Your task to perform on an android device: open chrome privacy settings Image 0: 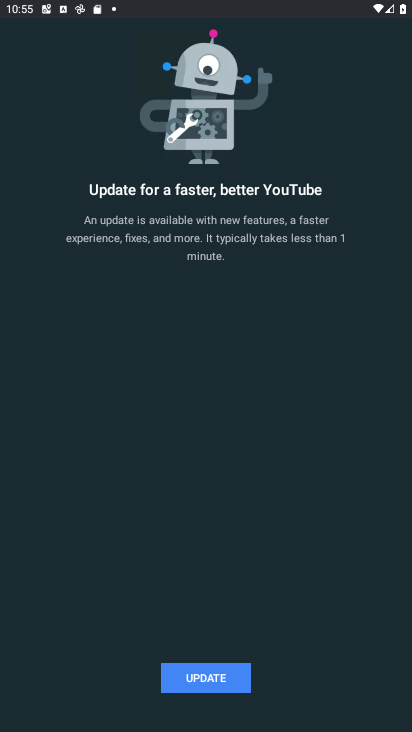
Step 0: press home button
Your task to perform on an android device: open chrome privacy settings Image 1: 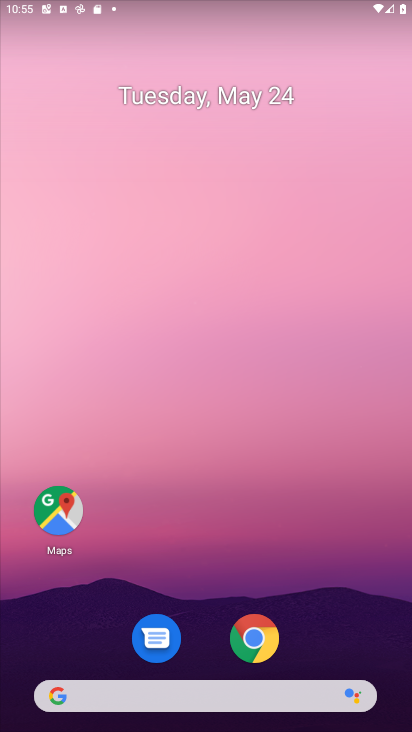
Step 1: click (208, 725)
Your task to perform on an android device: open chrome privacy settings Image 2: 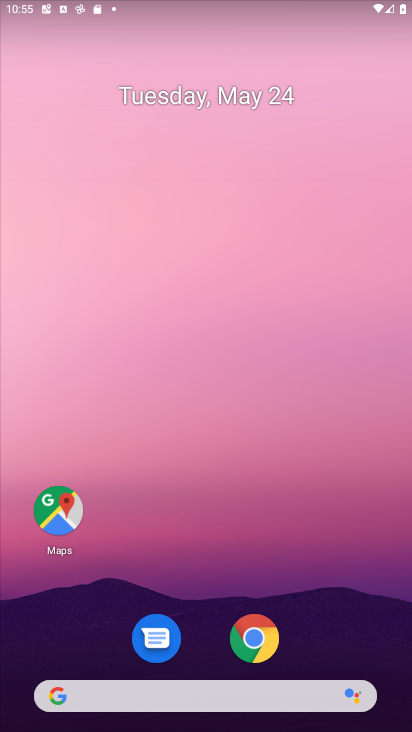
Step 2: click (249, 641)
Your task to perform on an android device: open chrome privacy settings Image 3: 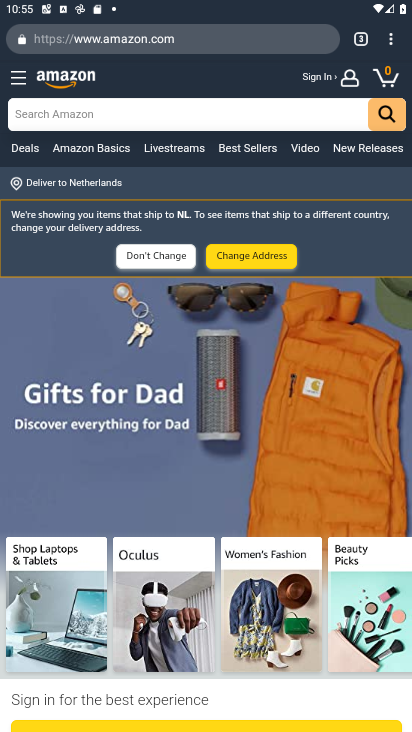
Step 3: click (398, 39)
Your task to perform on an android device: open chrome privacy settings Image 4: 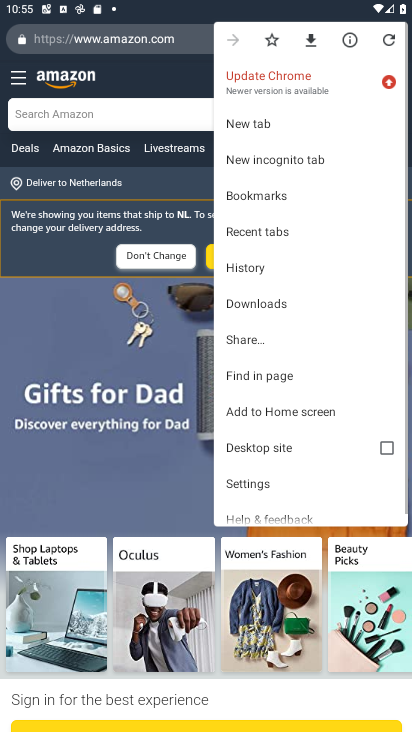
Step 4: click (287, 485)
Your task to perform on an android device: open chrome privacy settings Image 5: 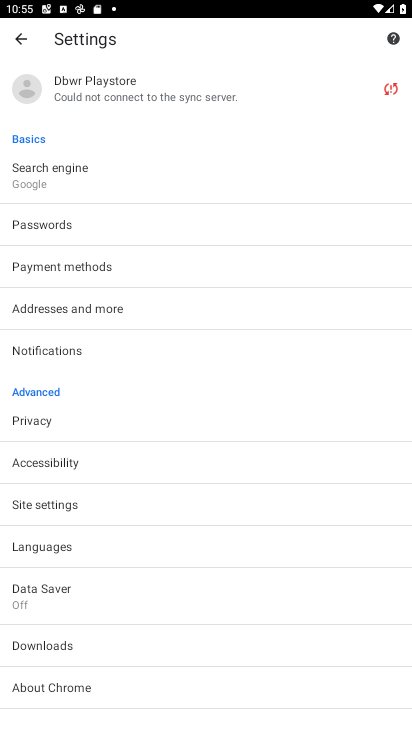
Step 5: click (80, 417)
Your task to perform on an android device: open chrome privacy settings Image 6: 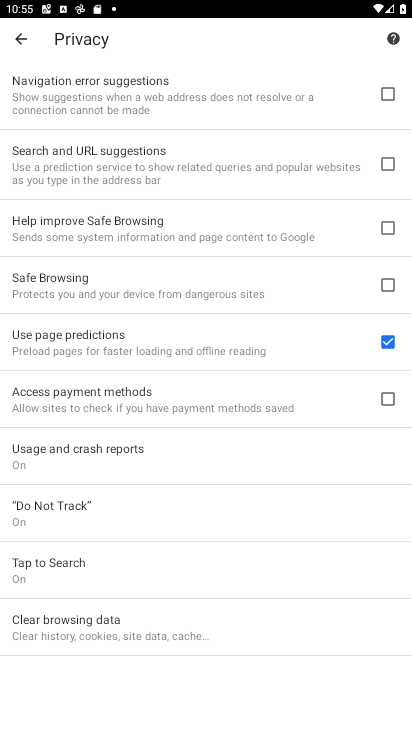
Step 6: task complete